Your task to perform on an android device: open wifi settings Image 0: 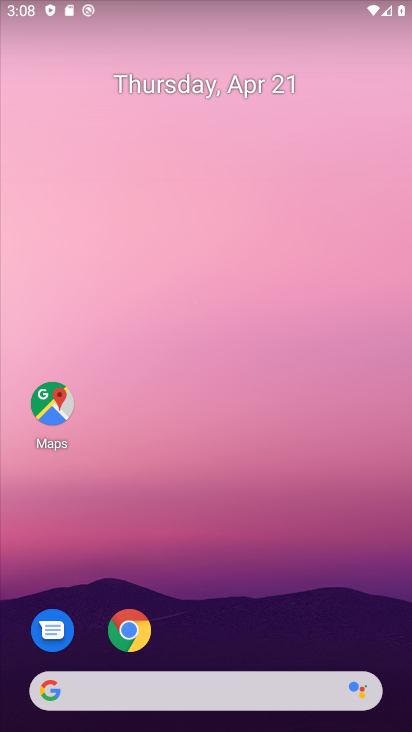
Step 0: drag from (227, 0) to (268, 315)
Your task to perform on an android device: open wifi settings Image 1: 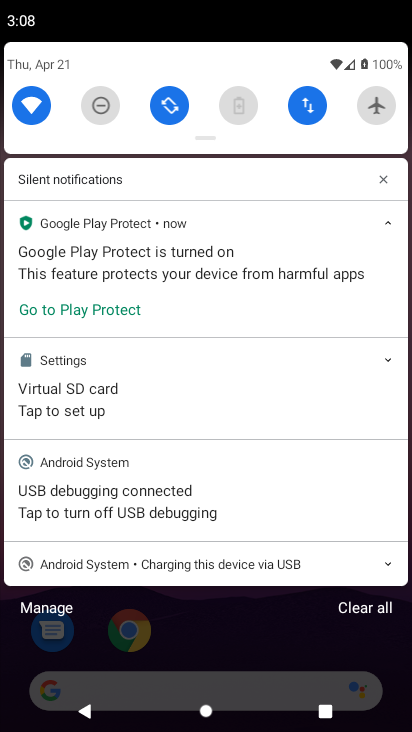
Step 1: click (31, 106)
Your task to perform on an android device: open wifi settings Image 2: 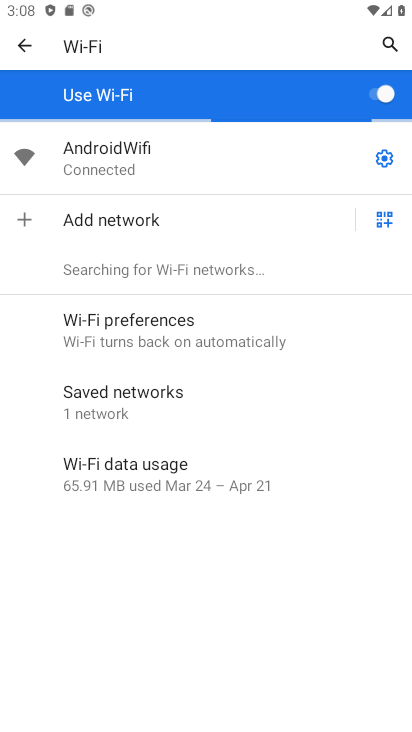
Step 2: click (386, 162)
Your task to perform on an android device: open wifi settings Image 3: 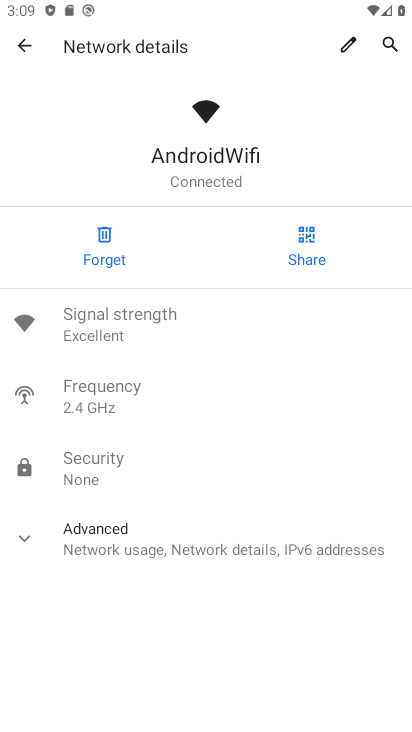
Step 3: task complete